Your task to perform on an android device: Set the phone to "Do not disturb". Image 0: 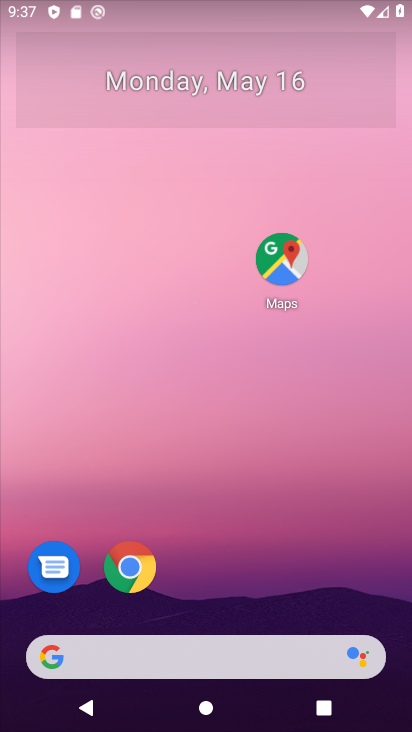
Step 0: drag from (132, 563) to (125, 156)
Your task to perform on an android device: Set the phone to "Do not disturb". Image 1: 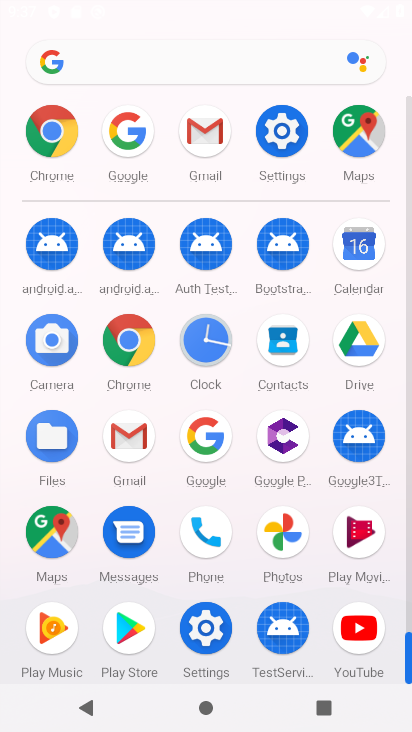
Step 1: click (277, 122)
Your task to perform on an android device: Set the phone to "Do not disturb". Image 2: 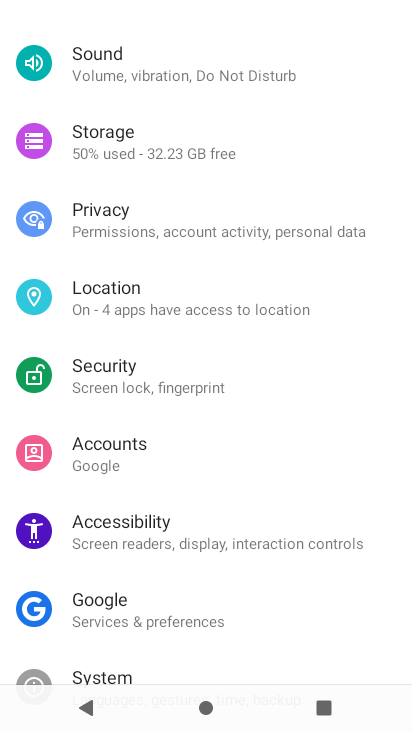
Step 2: drag from (182, 123) to (210, 311)
Your task to perform on an android device: Set the phone to "Do not disturb". Image 3: 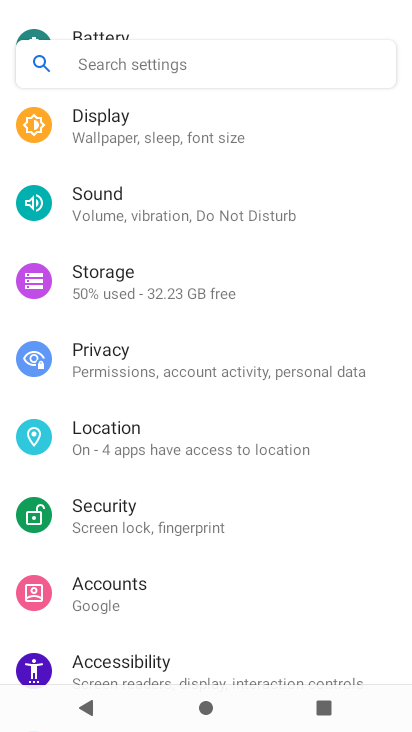
Step 3: click (132, 210)
Your task to perform on an android device: Set the phone to "Do not disturb". Image 4: 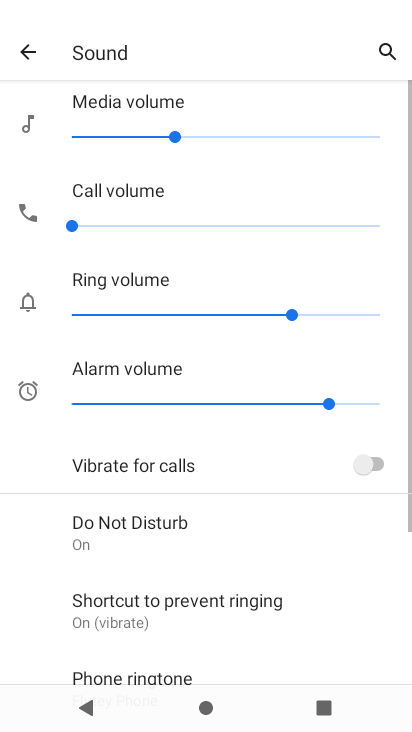
Step 4: click (213, 526)
Your task to perform on an android device: Set the phone to "Do not disturb". Image 5: 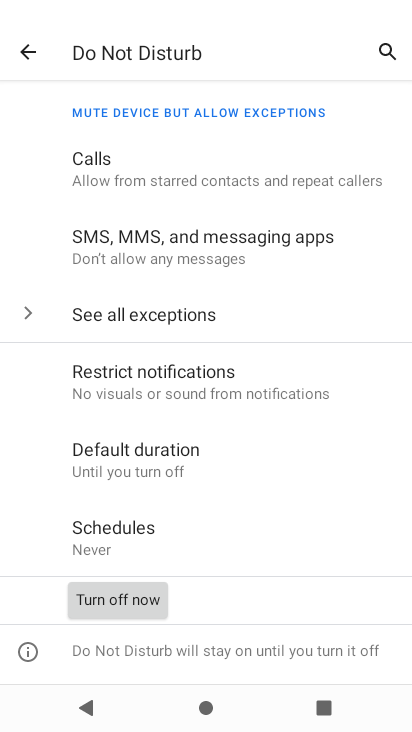
Step 5: task complete